Your task to perform on an android device: toggle javascript in the chrome app Image 0: 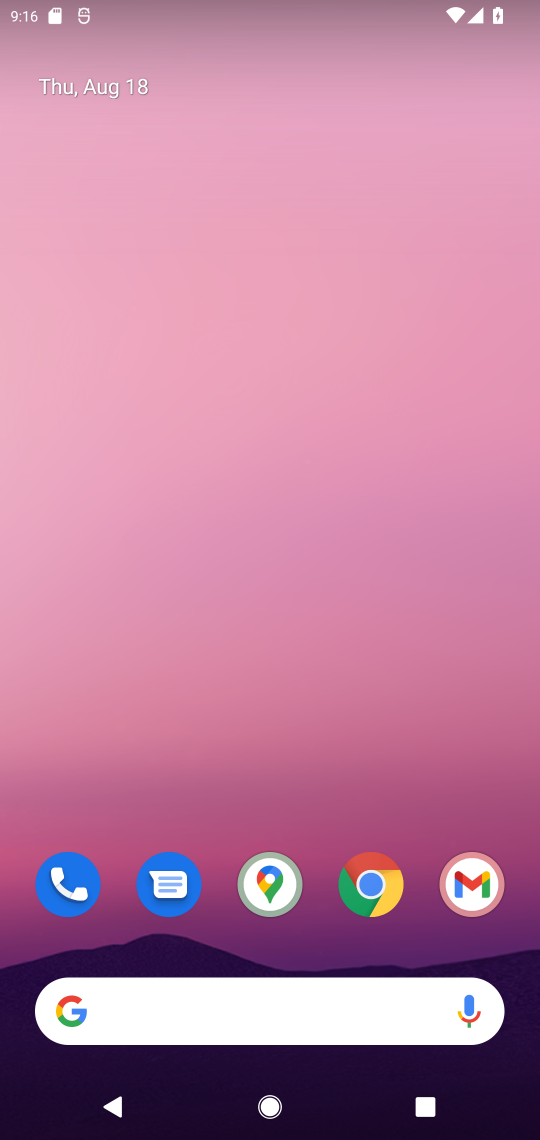
Step 0: click (380, 877)
Your task to perform on an android device: toggle javascript in the chrome app Image 1: 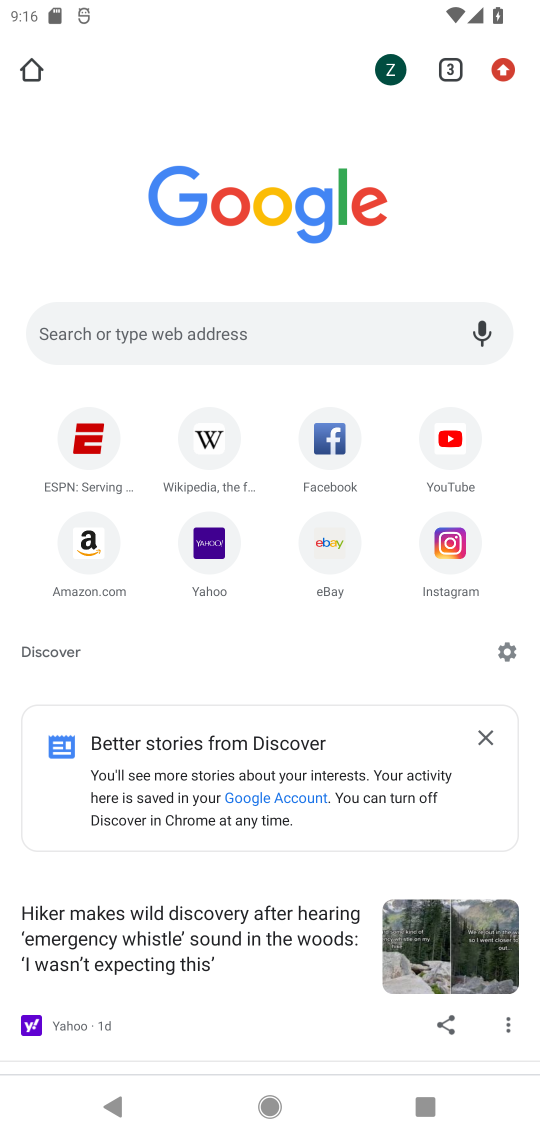
Step 1: click (507, 77)
Your task to perform on an android device: toggle javascript in the chrome app Image 2: 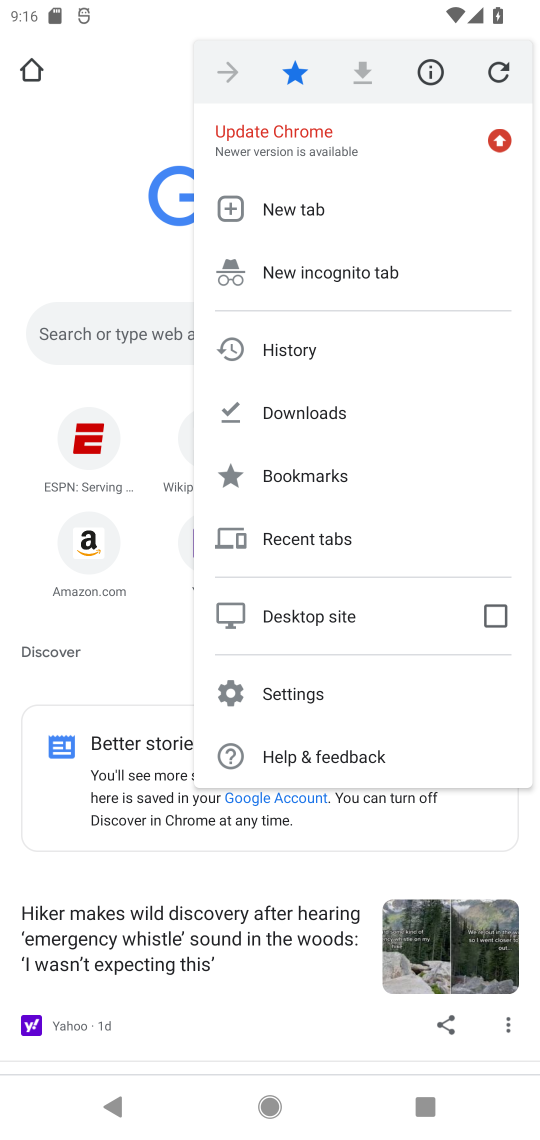
Step 2: click (271, 700)
Your task to perform on an android device: toggle javascript in the chrome app Image 3: 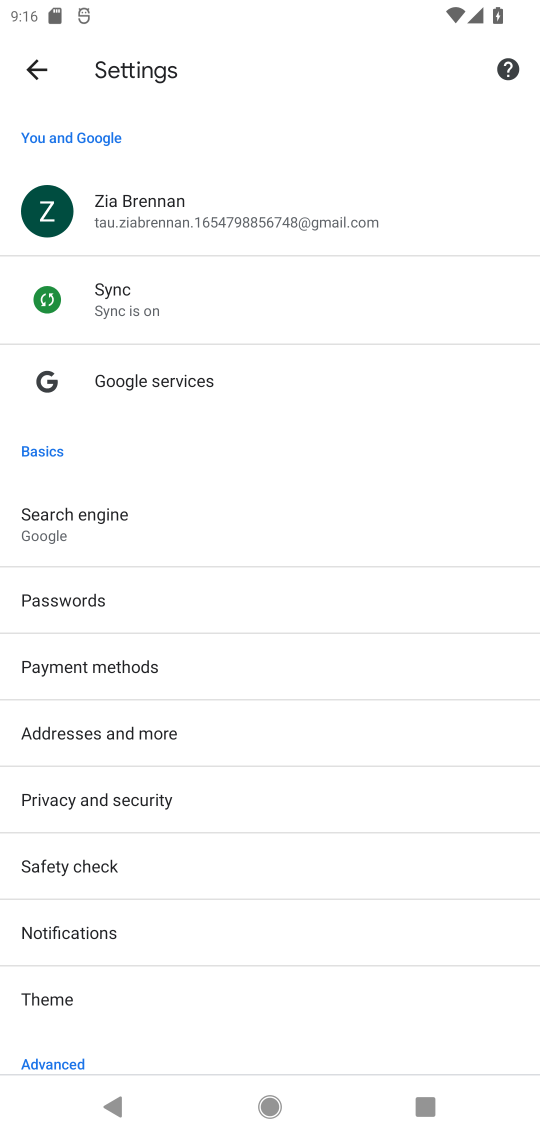
Step 3: drag from (95, 997) to (331, 114)
Your task to perform on an android device: toggle javascript in the chrome app Image 4: 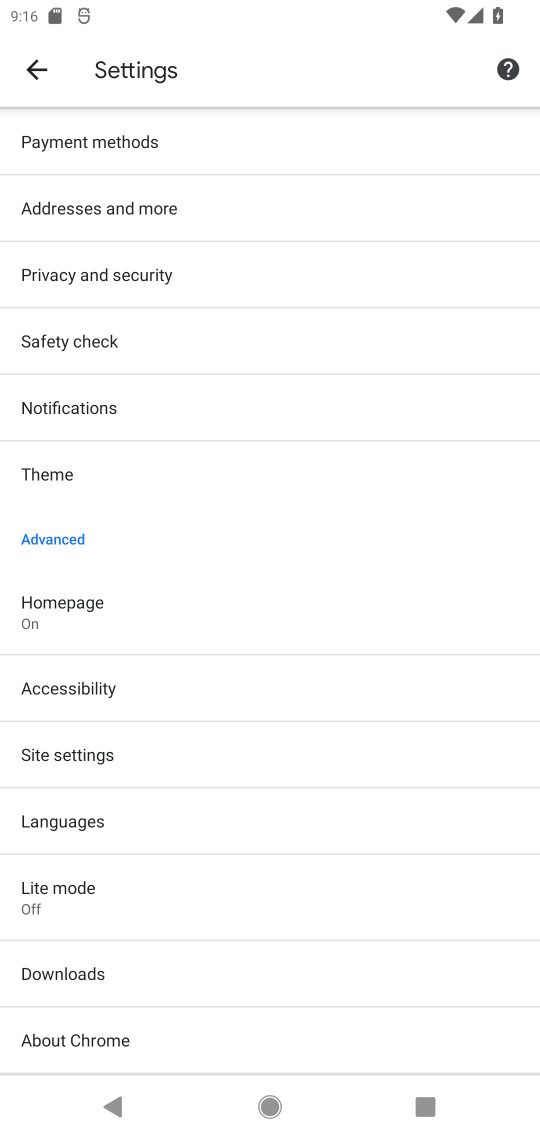
Step 4: click (136, 762)
Your task to perform on an android device: toggle javascript in the chrome app Image 5: 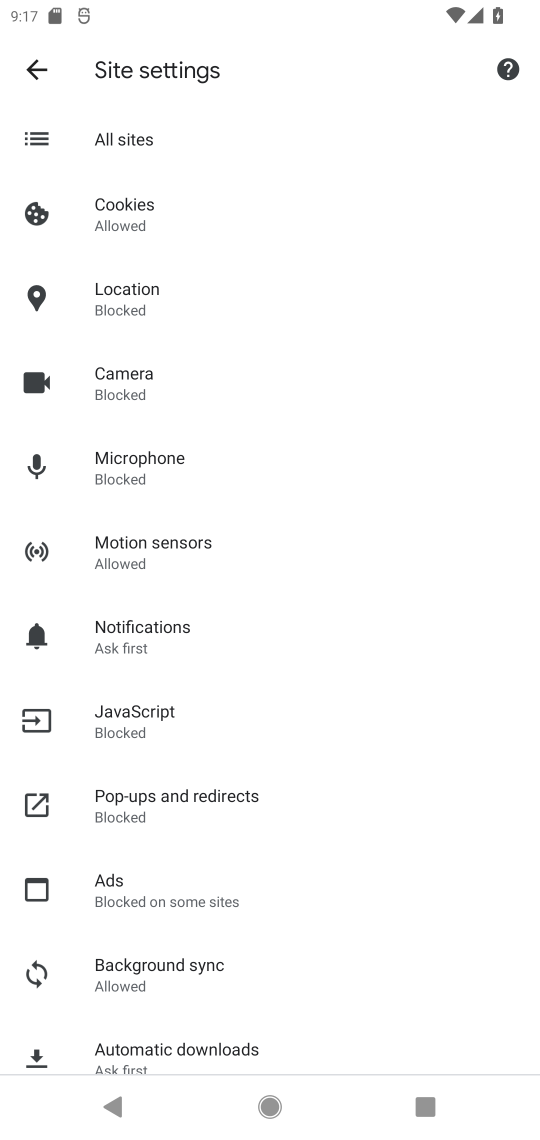
Step 5: click (162, 729)
Your task to perform on an android device: toggle javascript in the chrome app Image 6: 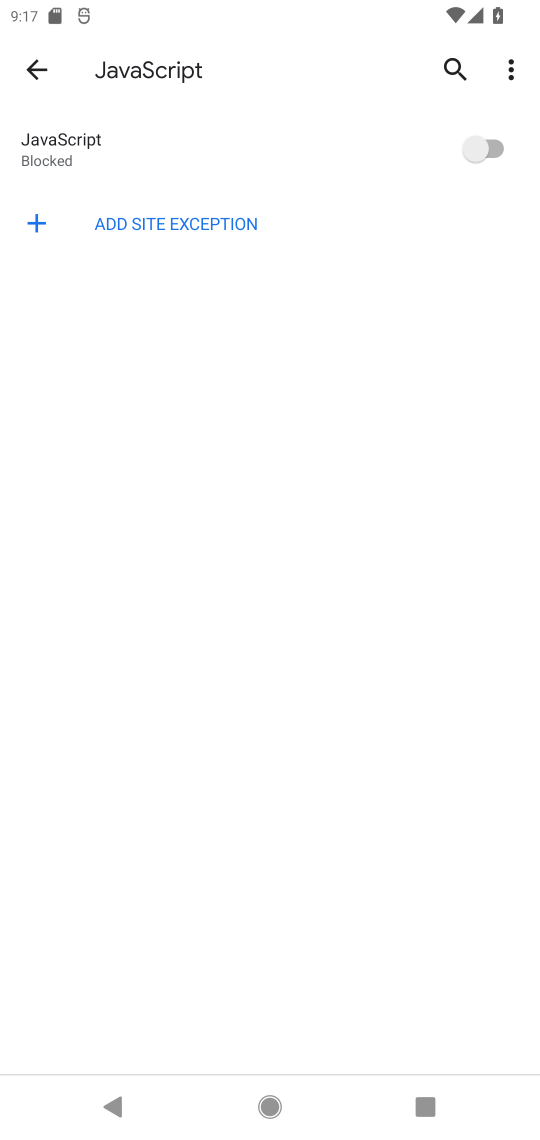
Step 6: task complete